Your task to perform on an android device: When is my next appointment? Image 0: 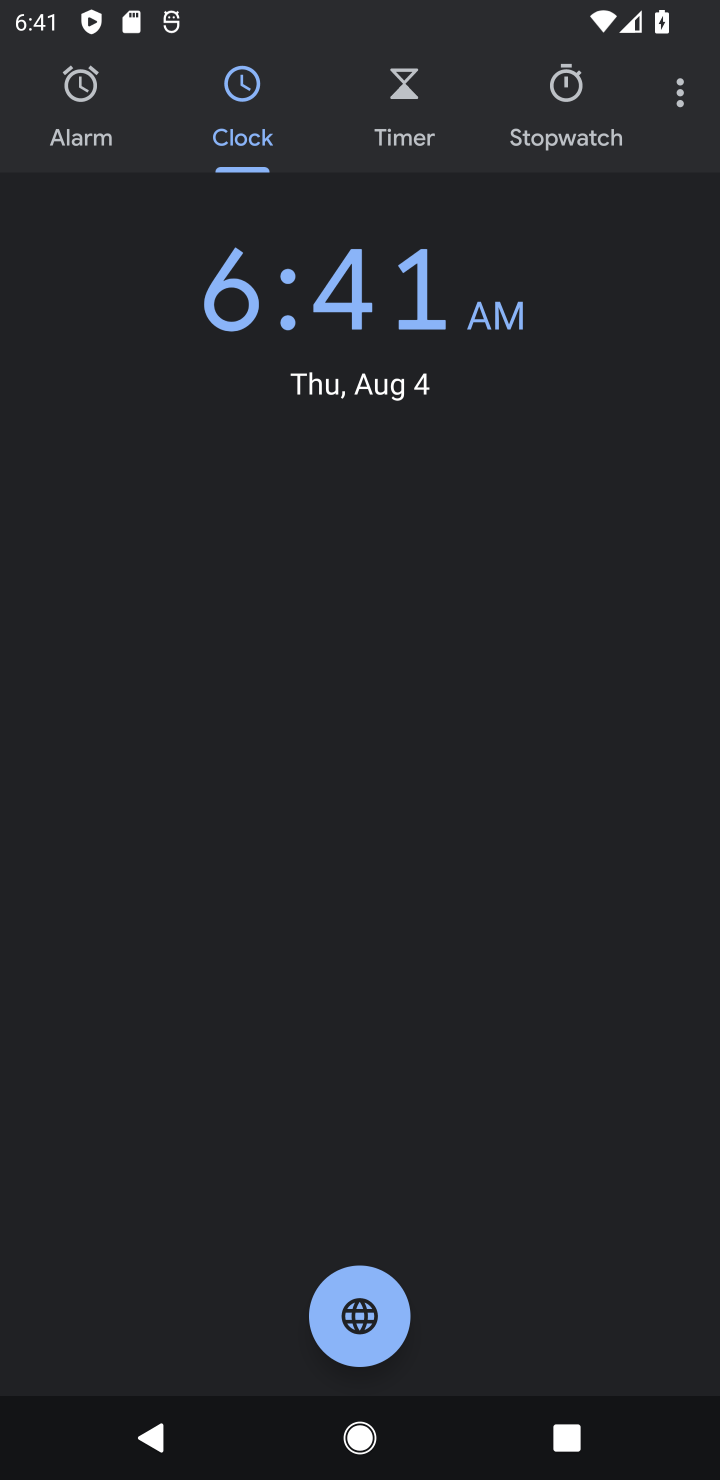
Step 0: press home button
Your task to perform on an android device: When is my next appointment? Image 1: 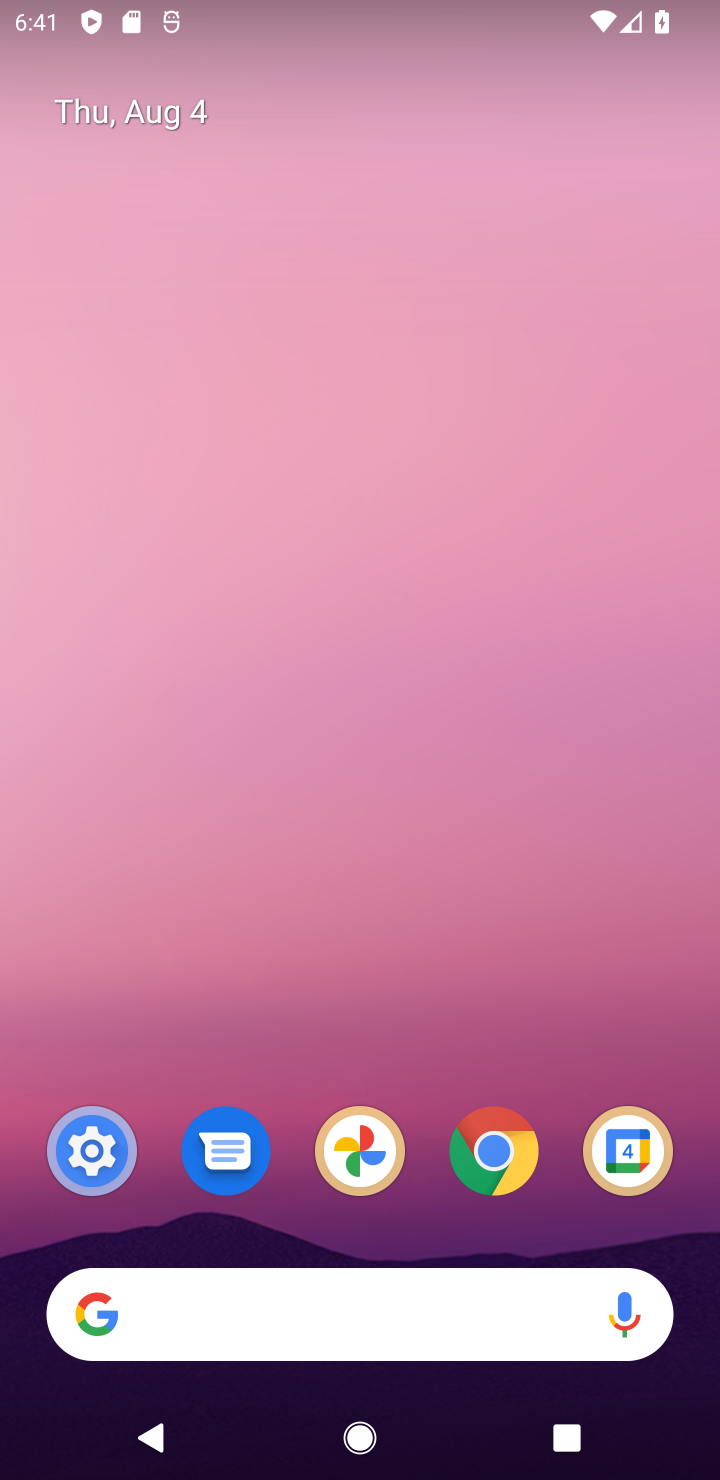
Step 1: drag from (444, 543) to (541, 15)
Your task to perform on an android device: When is my next appointment? Image 2: 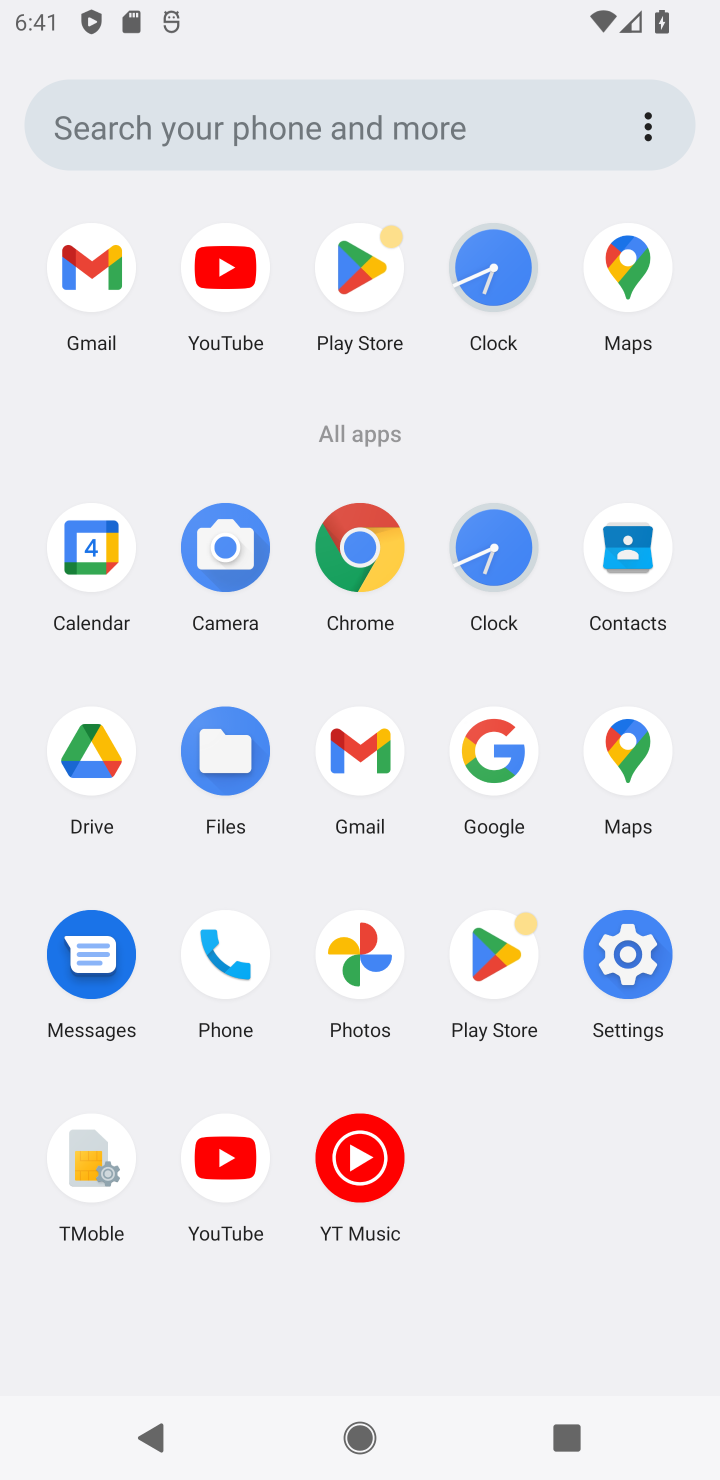
Step 2: click (111, 578)
Your task to perform on an android device: When is my next appointment? Image 3: 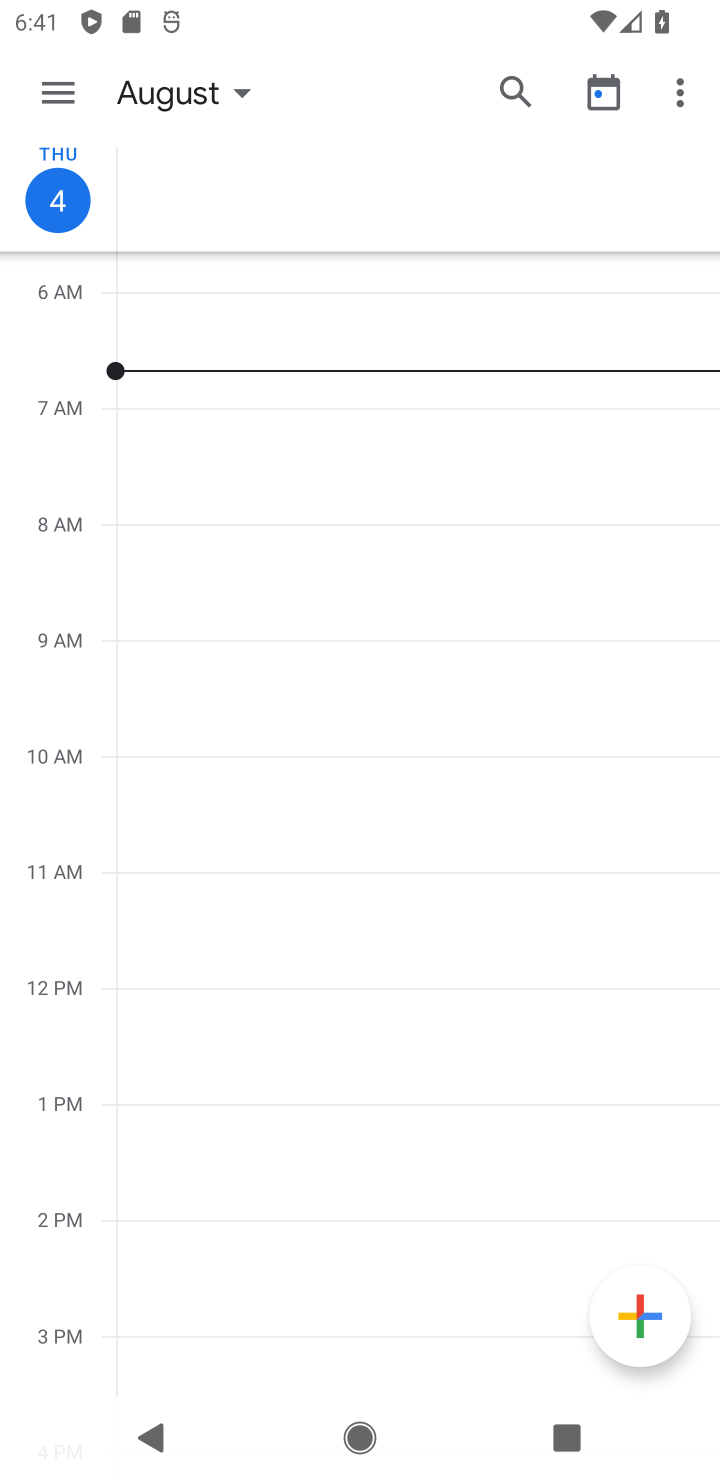
Step 3: click (24, 69)
Your task to perform on an android device: When is my next appointment? Image 4: 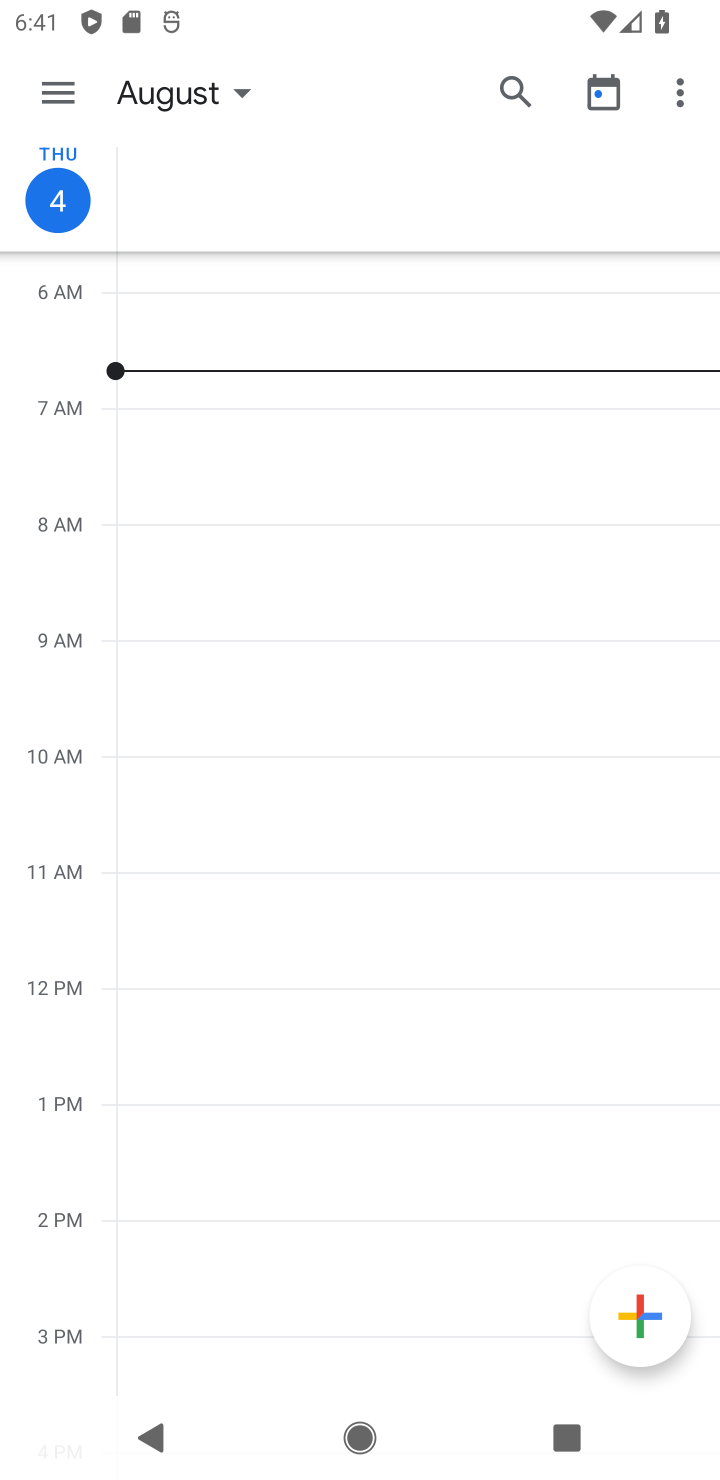
Step 4: click (70, 100)
Your task to perform on an android device: When is my next appointment? Image 5: 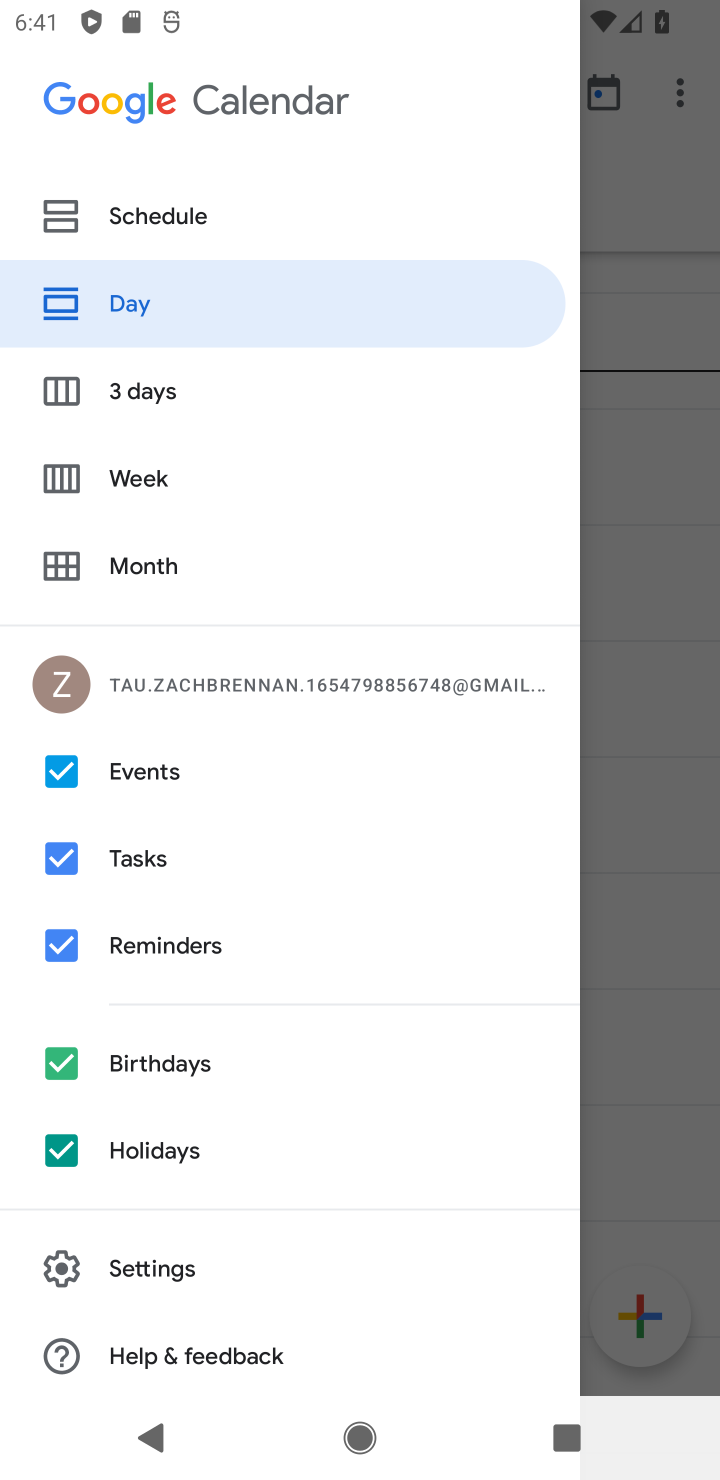
Step 5: click (173, 216)
Your task to perform on an android device: When is my next appointment? Image 6: 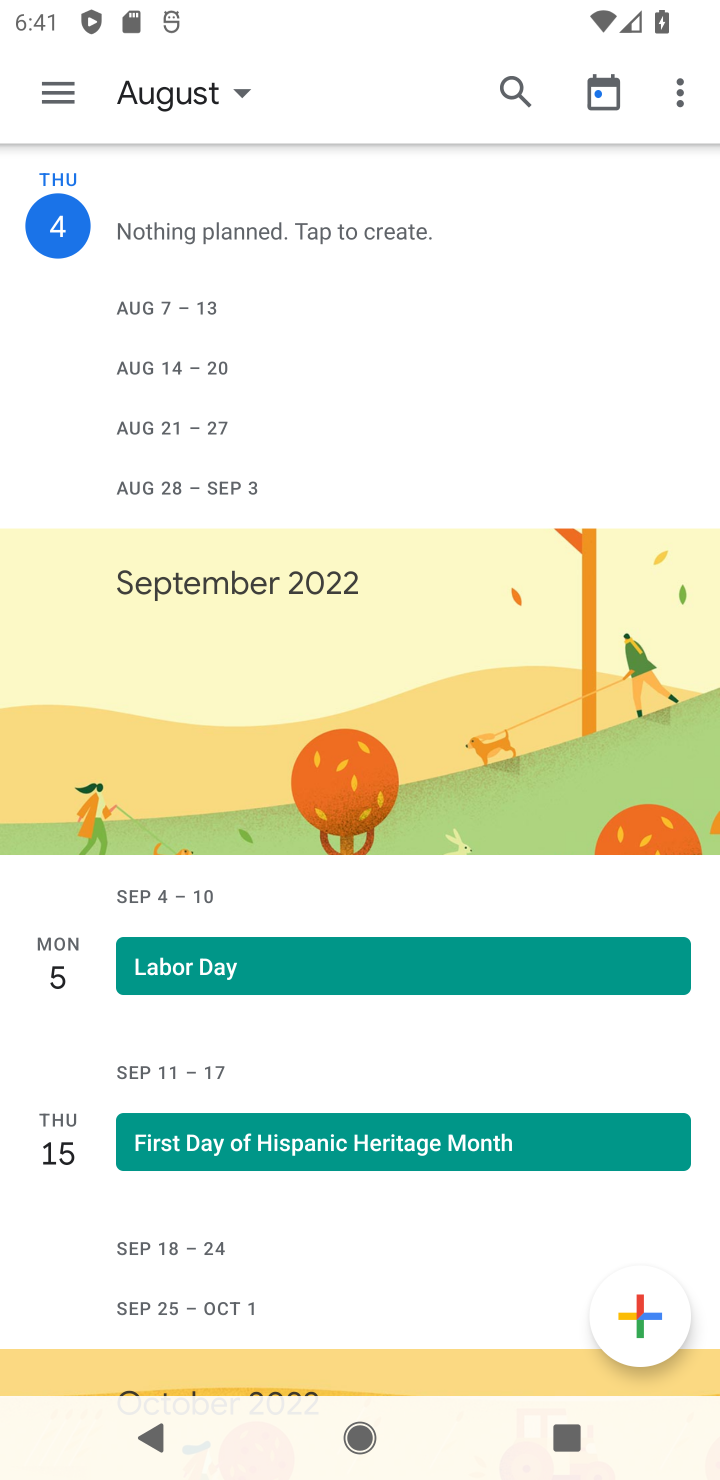
Step 6: task complete